Your task to perform on an android device: show emergency info Image 0: 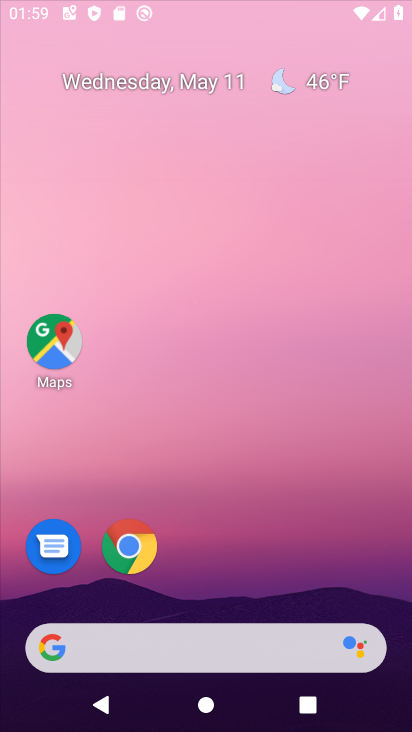
Step 0: click (246, 171)
Your task to perform on an android device: show emergency info Image 1: 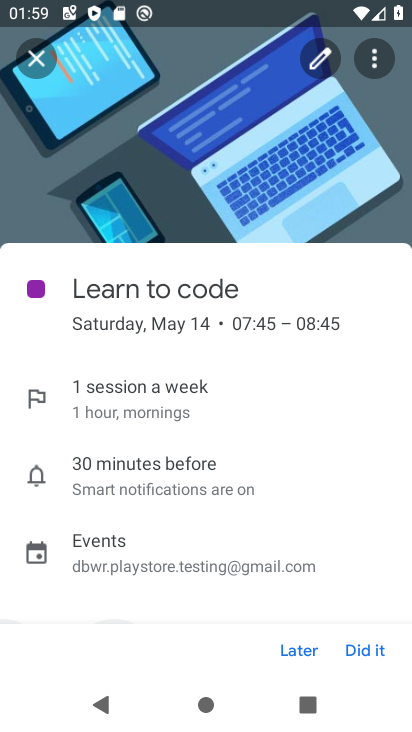
Step 1: press home button
Your task to perform on an android device: show emergency info Image 2: 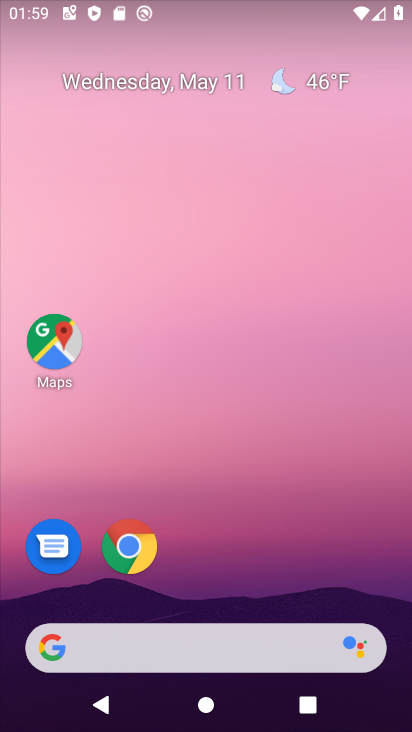
Step 2: drag from (166, 587) to (285, 124)
Your task to perform on an android device: show emergency info Image 3: 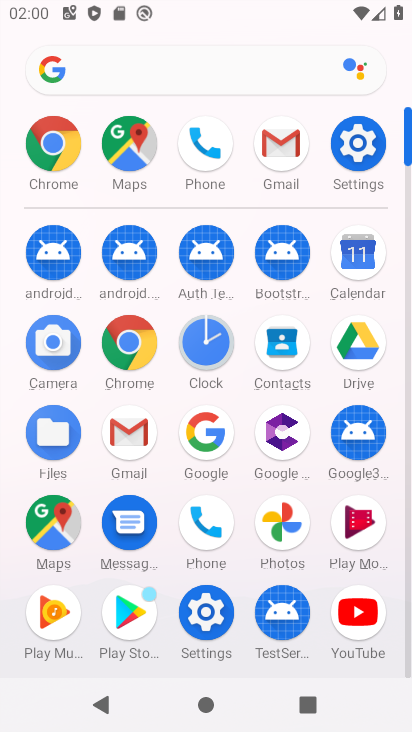
Step 3: click (352, 143)
Your task to perform on an android device: show emergency info Image 4: 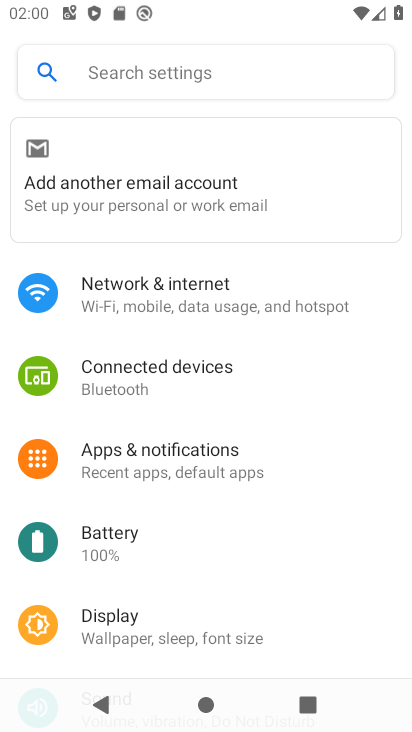
Step 4: drag from (227, 600) to (359, 93)
Your task to perform on an android device: show emergency info Image 5: 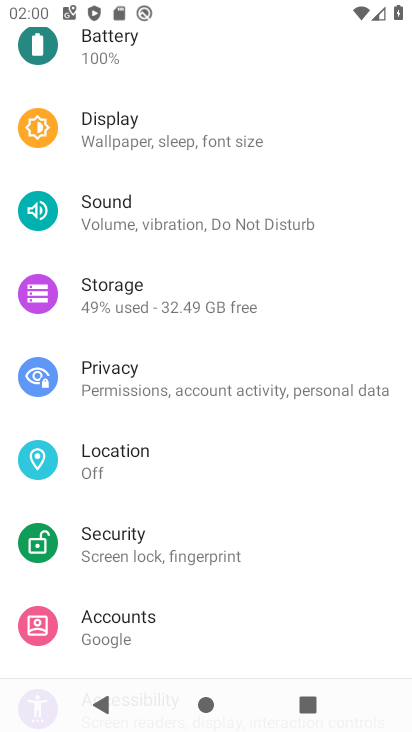
Step 5: drag from (205, 582) to (277, 2)
Your task to perform on an android device: show emergency info Image 6: 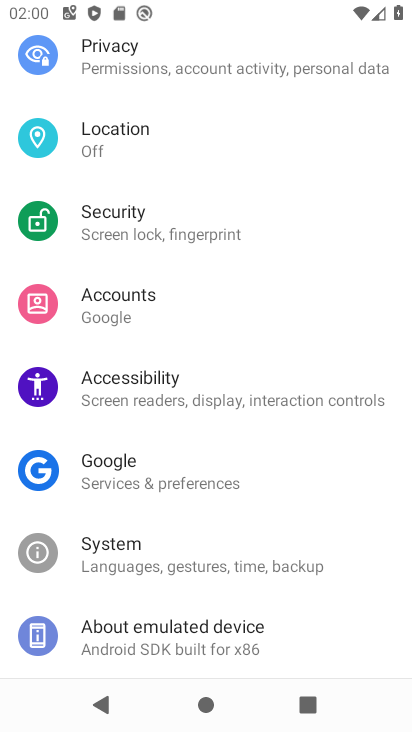
Step 6: click (164, 636)
Your task to perform on an android device: show emergency info Image 7: 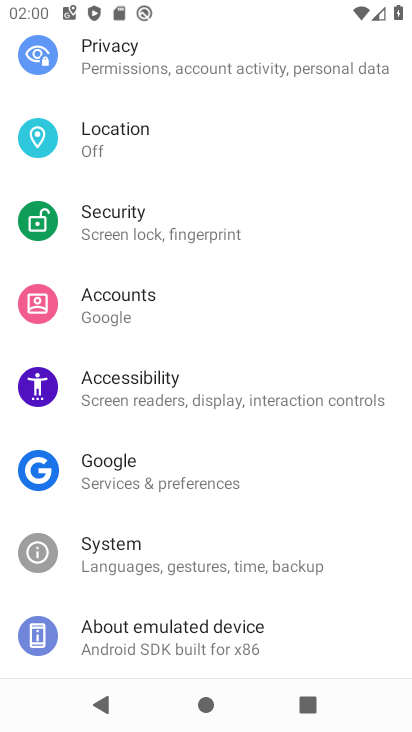
Step 7: click (164, 636)
Your task to perform on an android device: show emergency info Image 8: 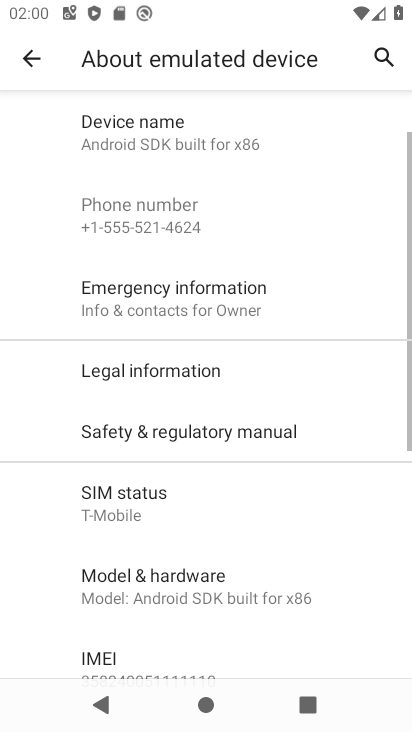
Step 8: drag from (210, 560) to (308, 193)
Your task to perform on an android device: show emergency info Image 9: 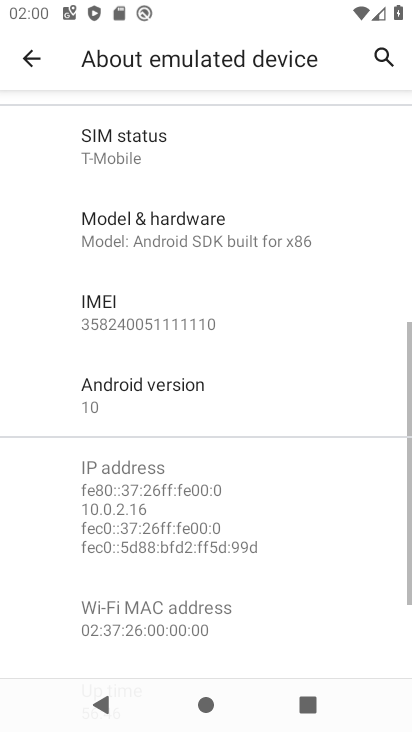
Step 9: drag from (269, 238) to (277, 728)
Your task to perform on an android device: show emergency info Image 10: 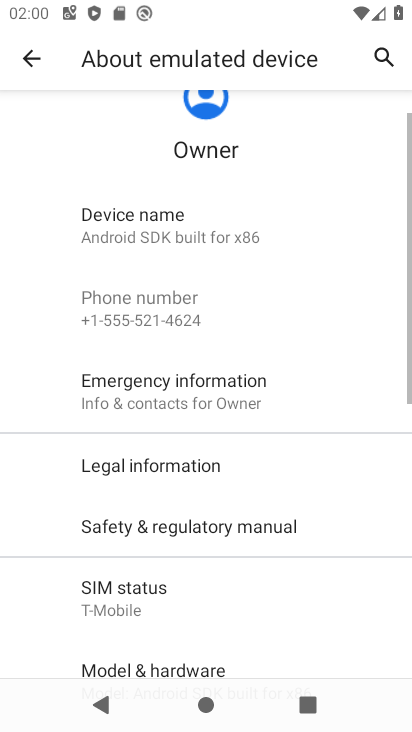
Step 10: click (181, 378)
Your task to perform on an android device: show emergency info Image 11: 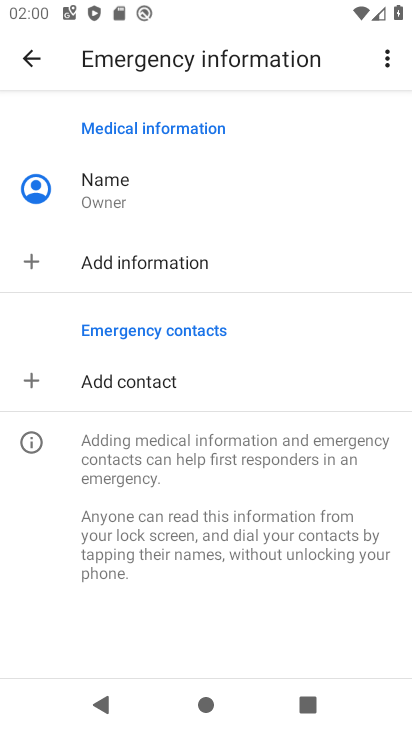
Step 11: task complete